Your task to perform on an android device: Go to Google maps Image 0: 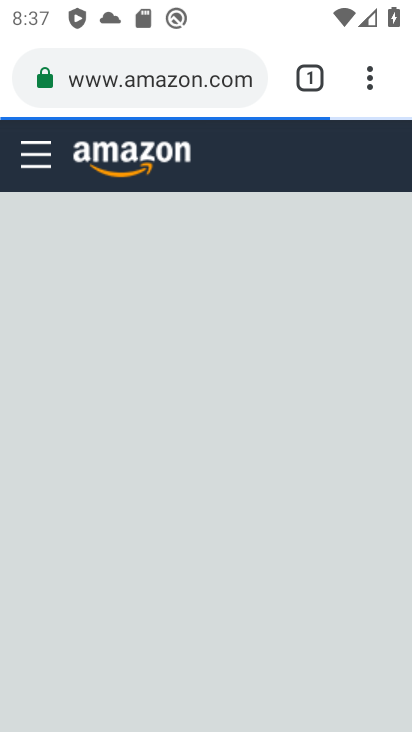
Step 0: press home button
Your task to perform on an android device: Go to Google maps Image 1: 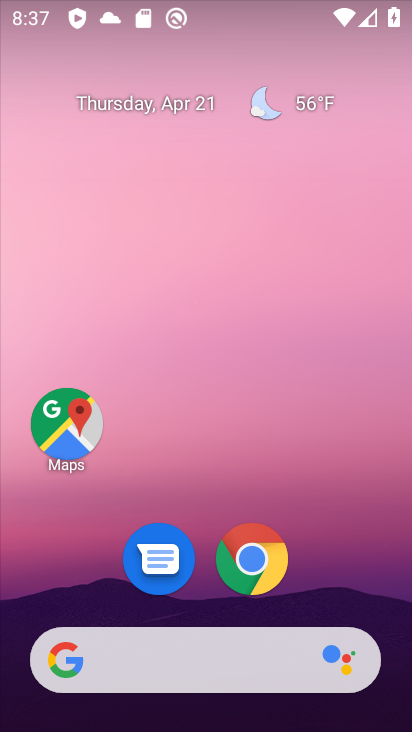
Step 1: click (76, 447)
Your task to perform on an android device: Go to Google maps Image 2: 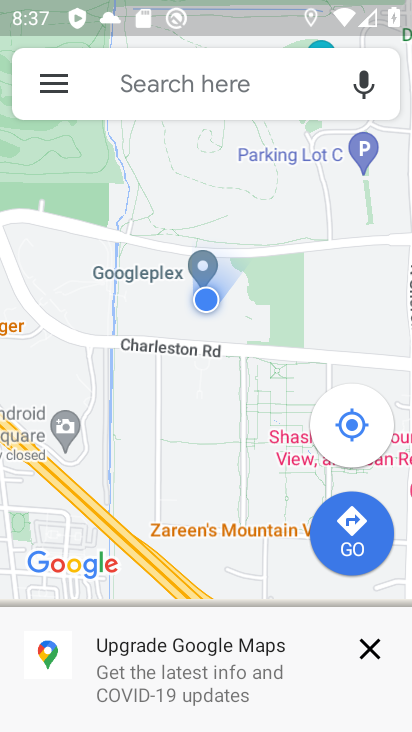
Step 2: task complete